Your task to perform on an android device: set the timer Image 0: 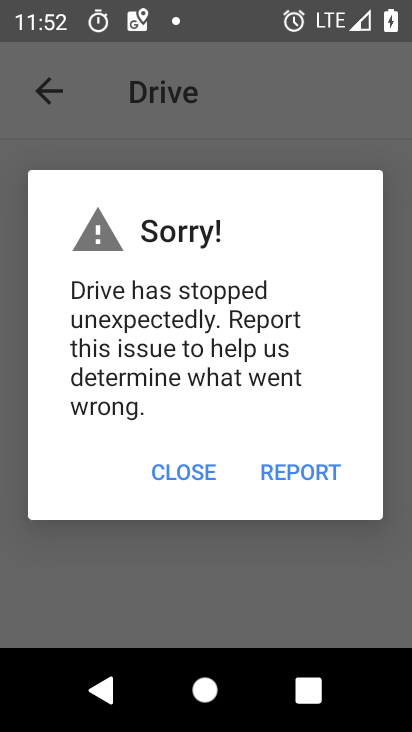
Step 0: press home button
Your task to perform on an android device: set the timer Image 1: 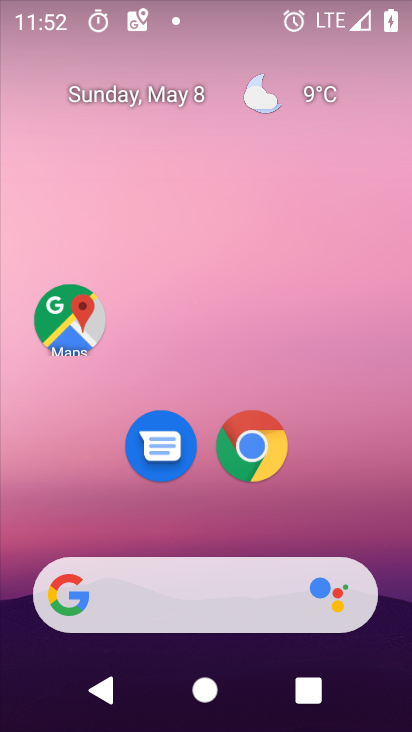
Step 1: drag from (356, 542) to (388, 37)
Your task to perform on an android device: set the timer Image 2: 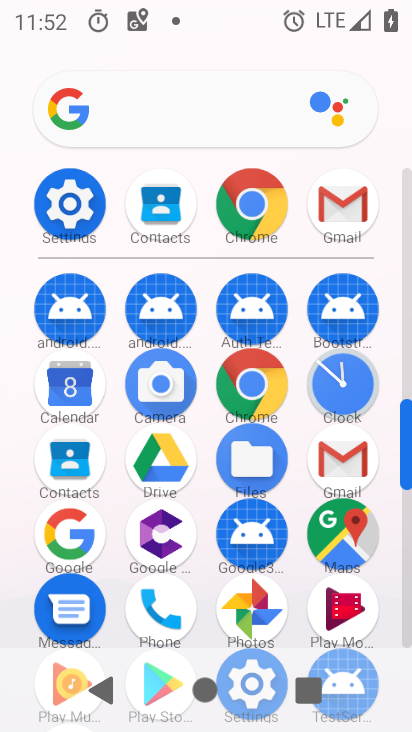
Step 2: click (335, 389)
Your task to perform on an android device: set the timer Image 3: 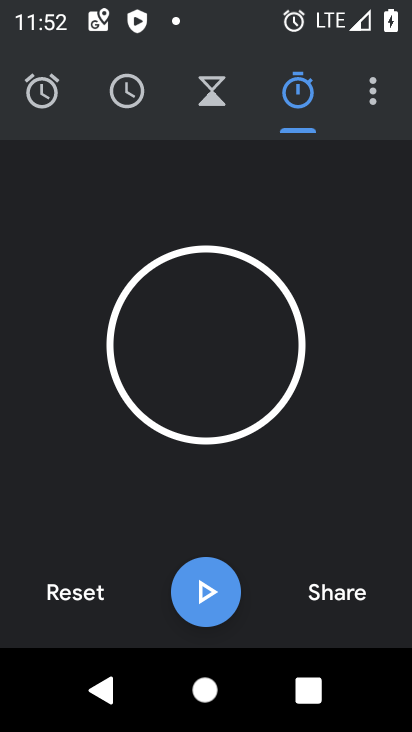
Step 3: click (216, 96)
Your task to perform on an android device: set the timer Image 4: 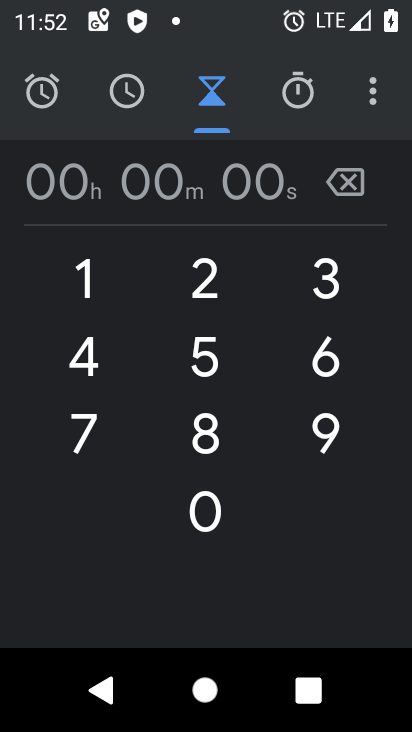
Step 4: click (349, 277)
Your task to perform on an android device: set the timer Image 5: 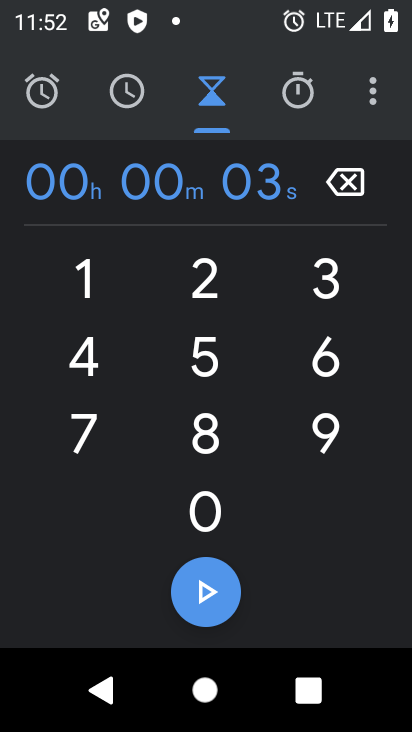
Step 5: click (214, 509)
Your task to perform on an android device: set the timer Image 6: 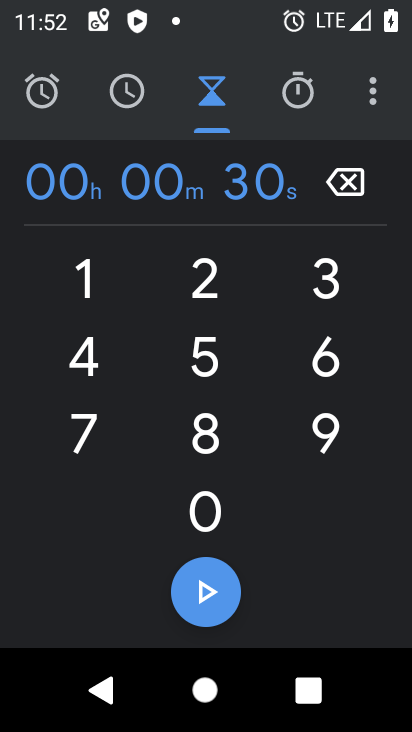
Step 6: click (204, 578)
Your task to perform on an android device: set the timer Image 7: 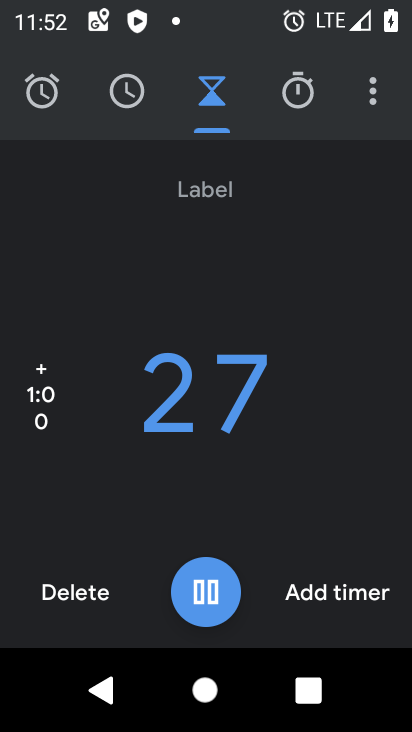
Step 7: task complete